Your task to perform on an android device: Open internet settings Image 0: 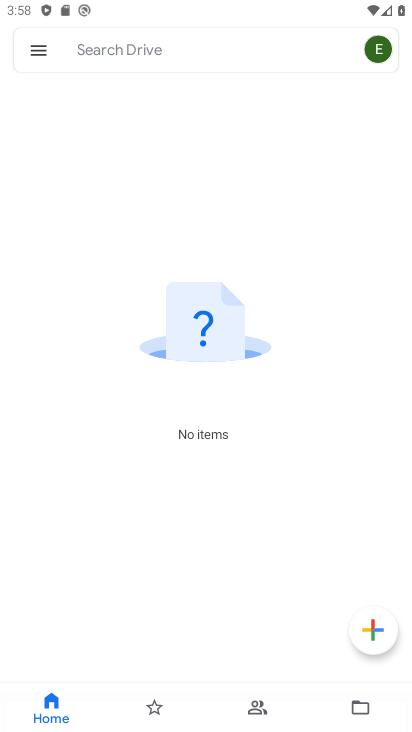
Step 0: press home button
Your task to perform on an android device: Open internet settings Image 1: 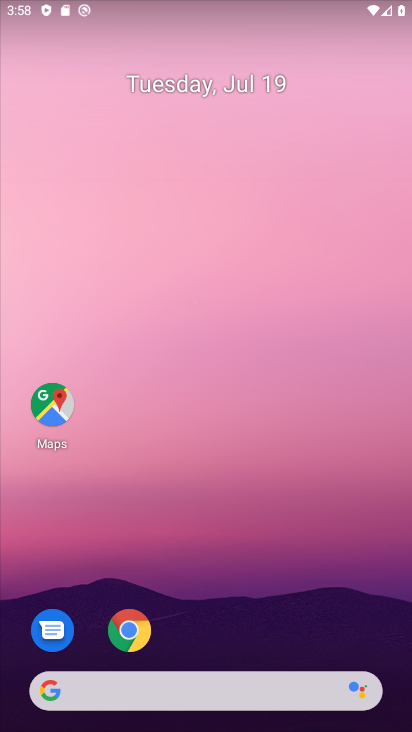
Step 1: drag from (283, 279) to (369, 33)
Your task to perform on an android device: Open internet settings Image 2: 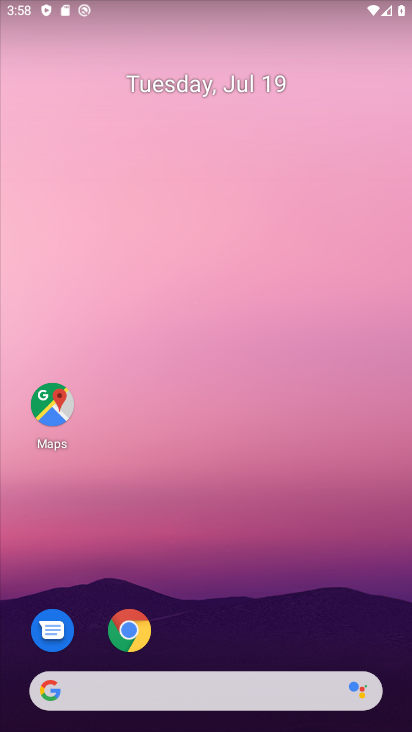
Step 2: drag from (171, 343) to (265, 188)
Your task to perform on an android device: Open internet settings Image 3: 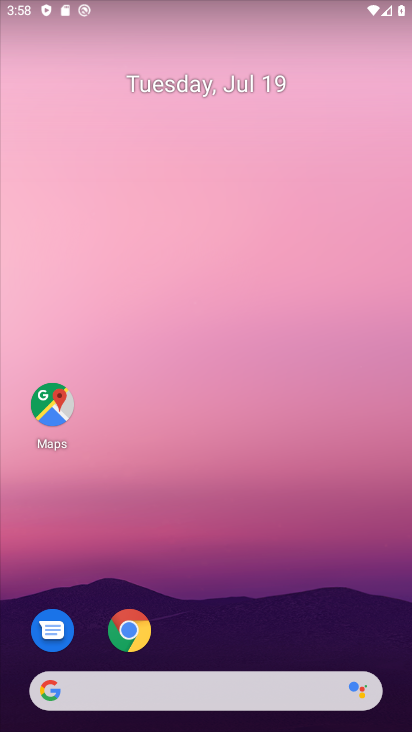
Step 3: drag from (21, 688) to (350, 92)
Your task to perform on an android device: Open internet settings Image 4: 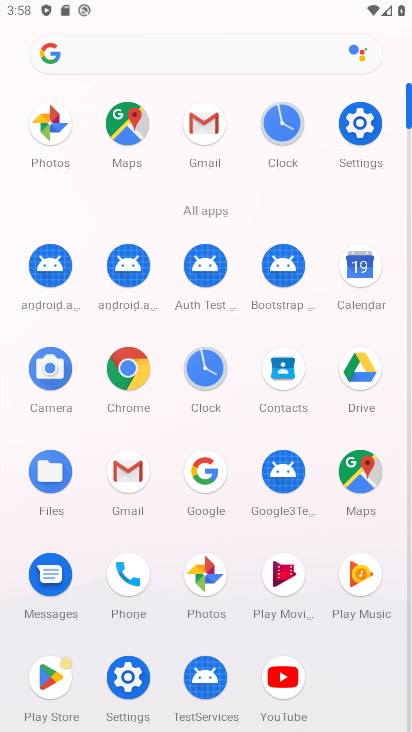
Step 4: click (148, 660)
Your task to perform on an android device: Open internet settings Image 5: 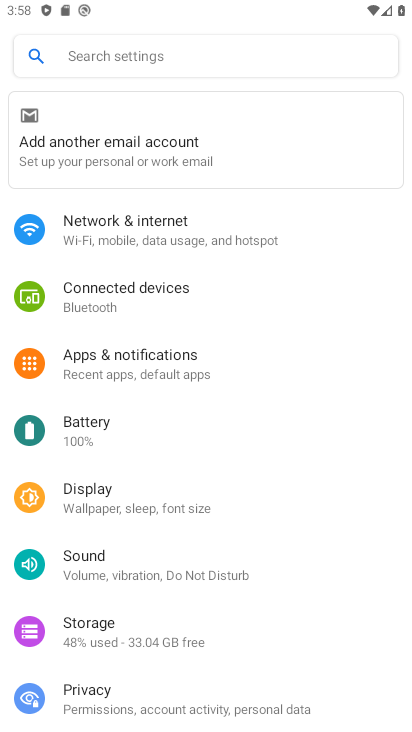
Step 5: click (164, 217)
Your task to perform on an android device: Open internet settings Image 6: 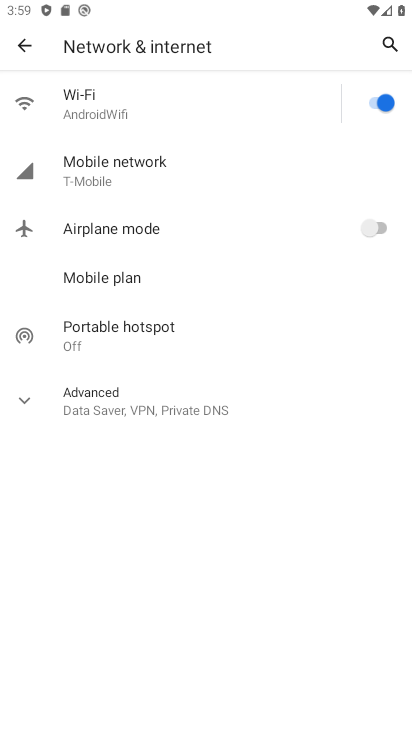
Step 6: task complete